Your task to perform on an android device: search for starred emails in the gmail app Image 0: 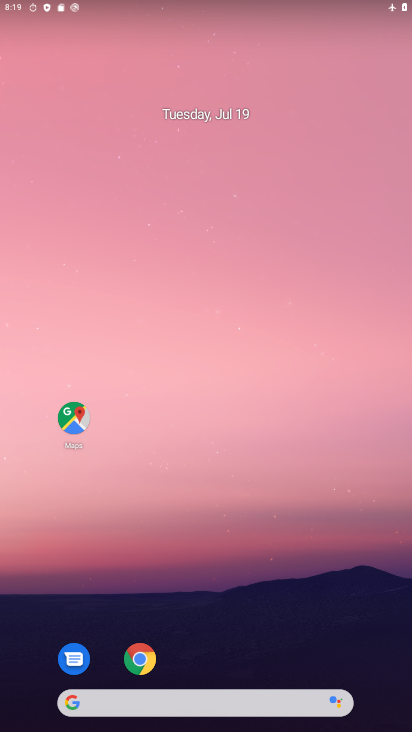
Step 0: drag from (246, 620) to (360, 3)
Your task to perform on an android device: search for starred emails in the gmail app Image 1: 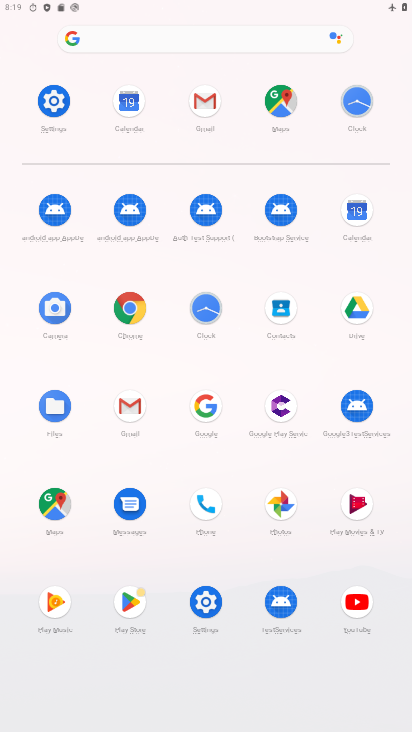
Step 1: click (207, 121)
Your task to perform on an android device: search for starred emails in the gmail app Image 2: 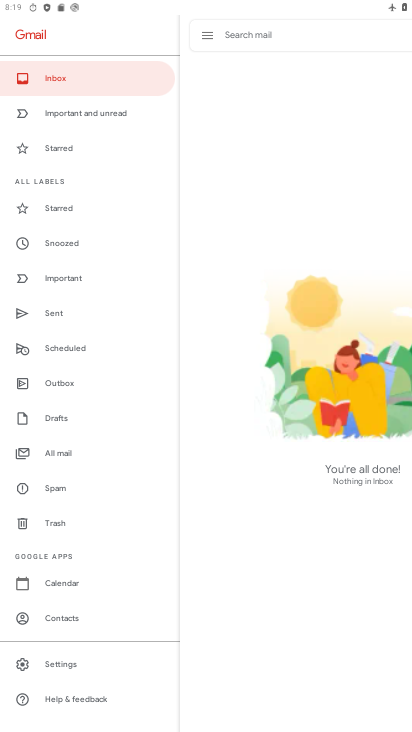
Step 2: click (43, 212)
Your task to perform on an android device: search for starred emails in the gmail app Image 3: 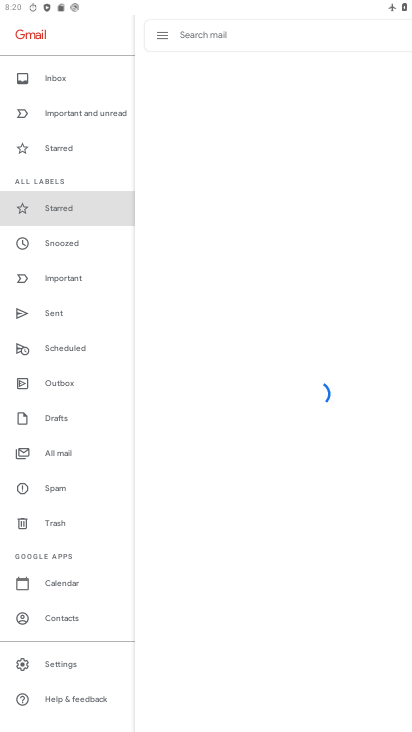
Step 3: task complete